Your task to perform on an android device: Go to Google maps Image 0: 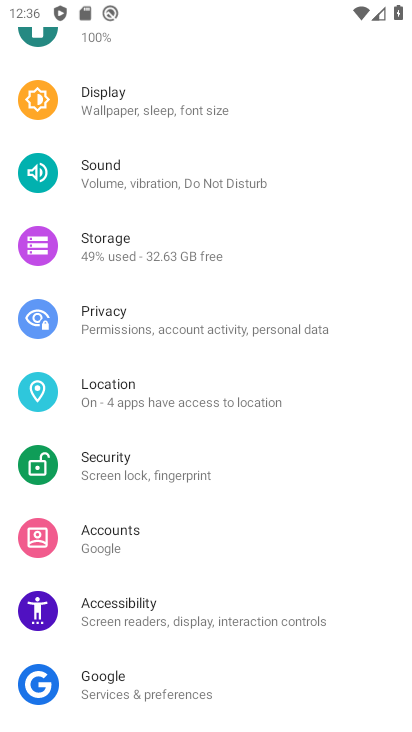
Step 0: press home button
Your task to perform on an android device: Go to Google maps Image 1: 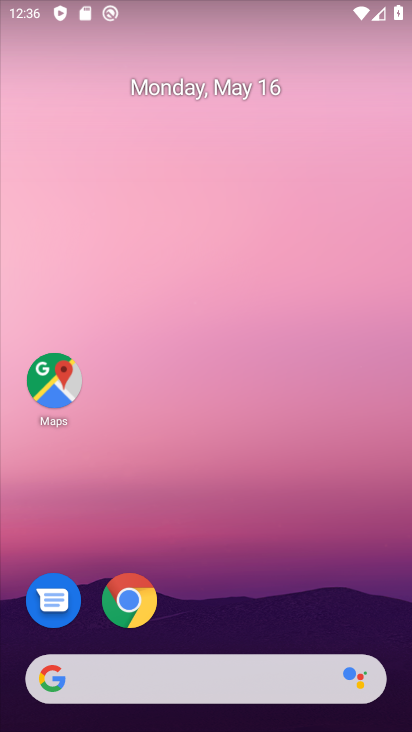
Step 1: drag from (346, 592) to (356, 133)
Your task to perform on an android device: Go to Google maps Image 2: 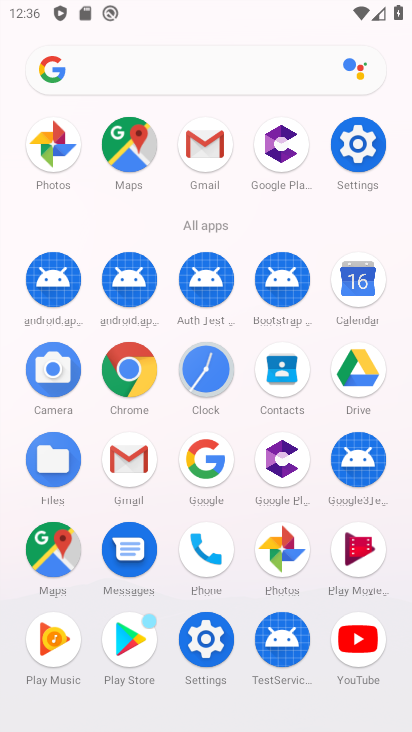
Step 2: click (144, 156)
Your task to perform on an android device: Go to Google maps Image 3: 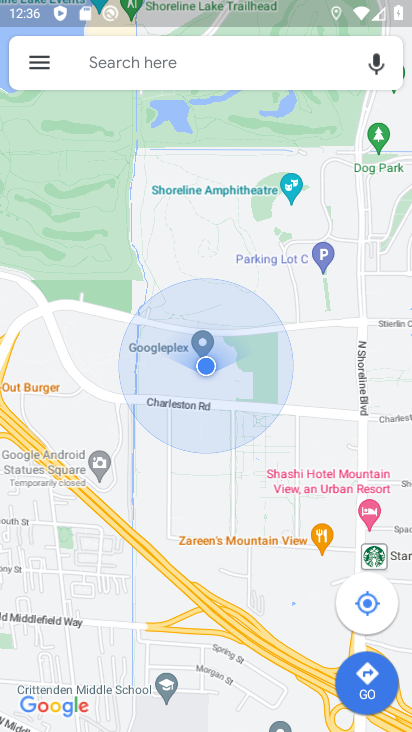
Step 3: task complete